Your task to perform on an android device: turn off translation in the chrome app Image 0: 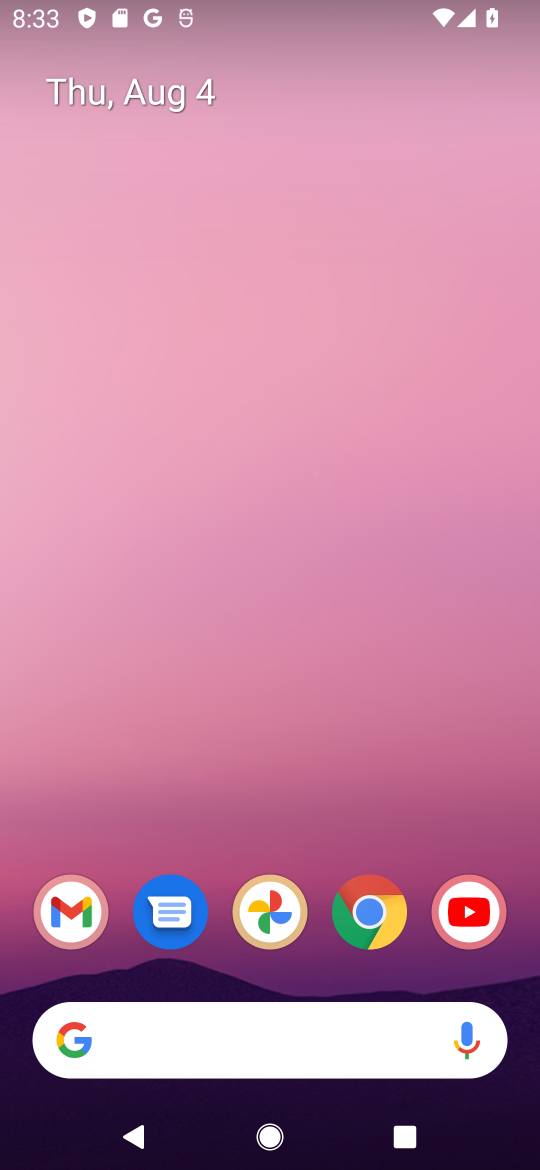
Step 0: click (363, 950)
Your task to perform on an android device: turn off translation in the chrome app Image 1: 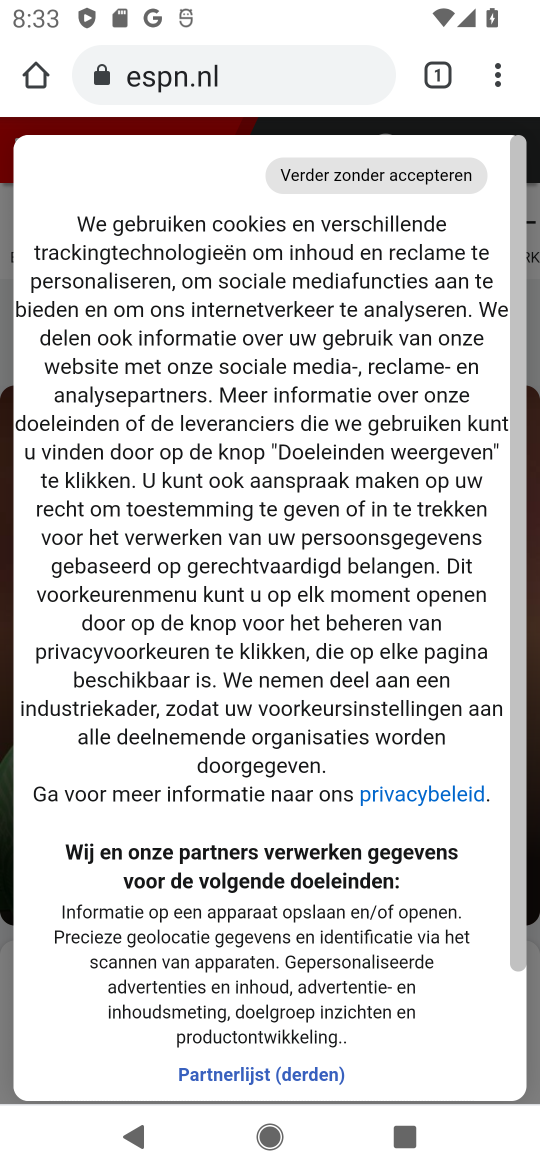
Step 1: click (497, 85)
Your task to perform on an android device: turn off translation in the chrome app Image 2: 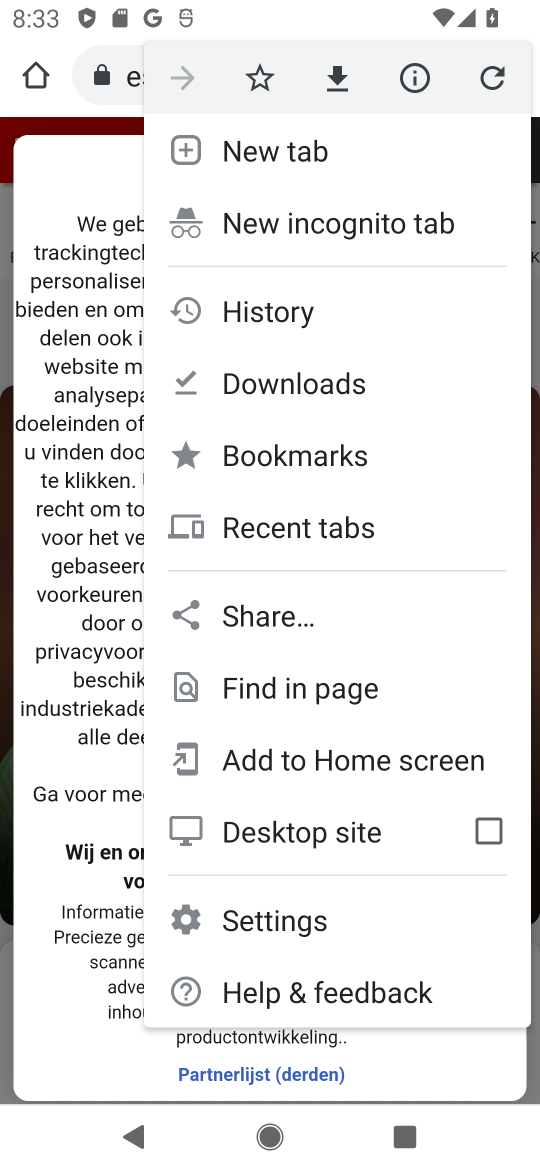
Step 2: click (313, 919)
Your task to perform on an android device: turn off translation in the chrome app Image 3: 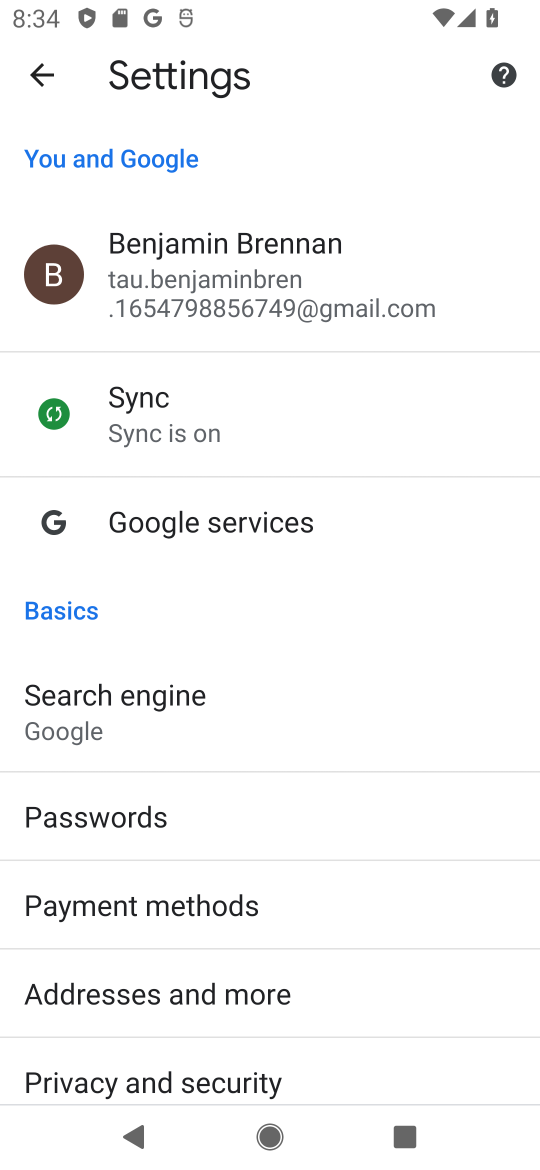
Step 3: drag from (368, 1082) to (365, 551)
Your task to perform on an android device: turn off translation in the chrome app Image 4: 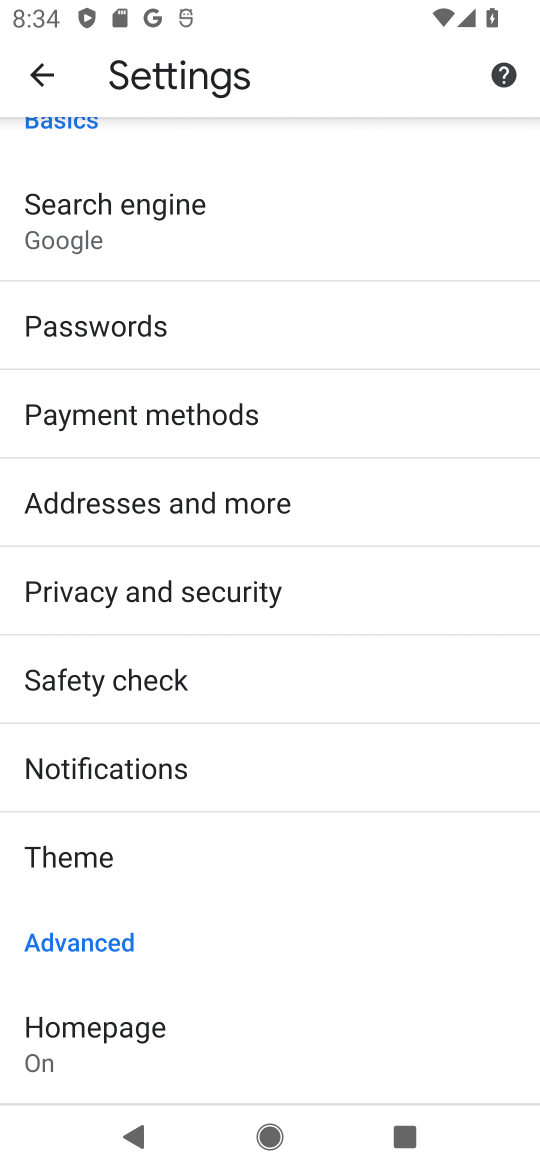
Step 4: drag from (378, 1020) to (323, 466)
Your task to perform on an android device: turn off translation in the chrome app Image 5: 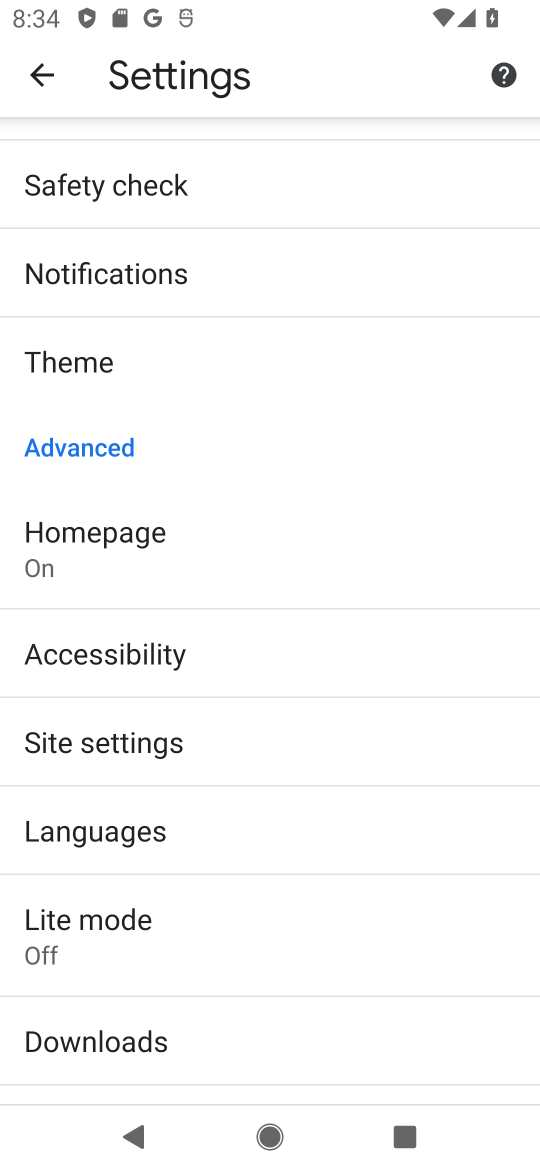
Step 5: click (340, 837)
Your task to perform on an android device: turn off translation in the chrome app Image 6: 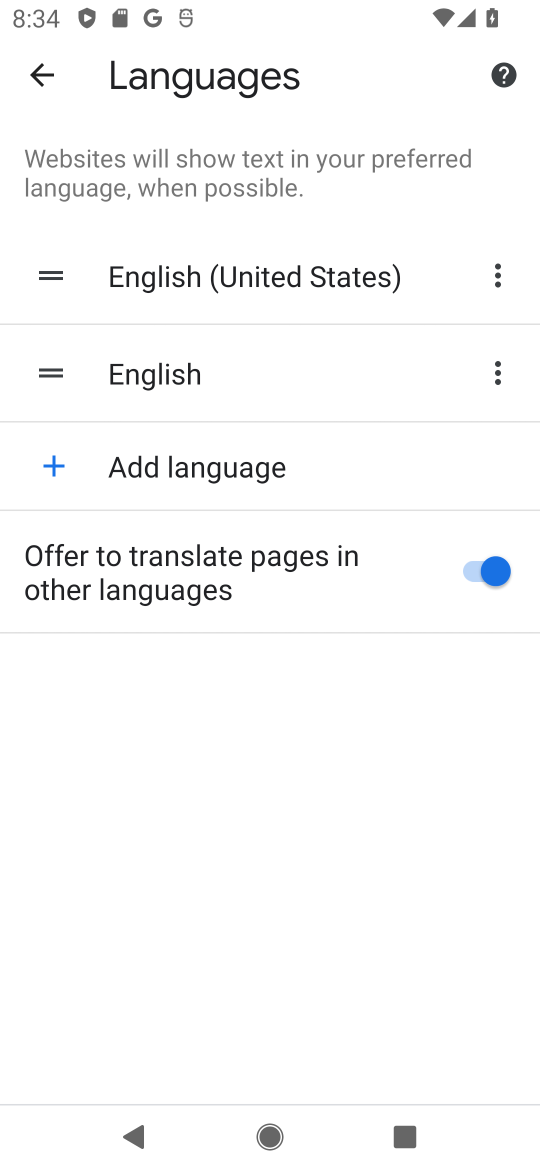
Step 6: click (474, 576)
Your task to perform on an android device: turn off translation in the chrome app Image 7: 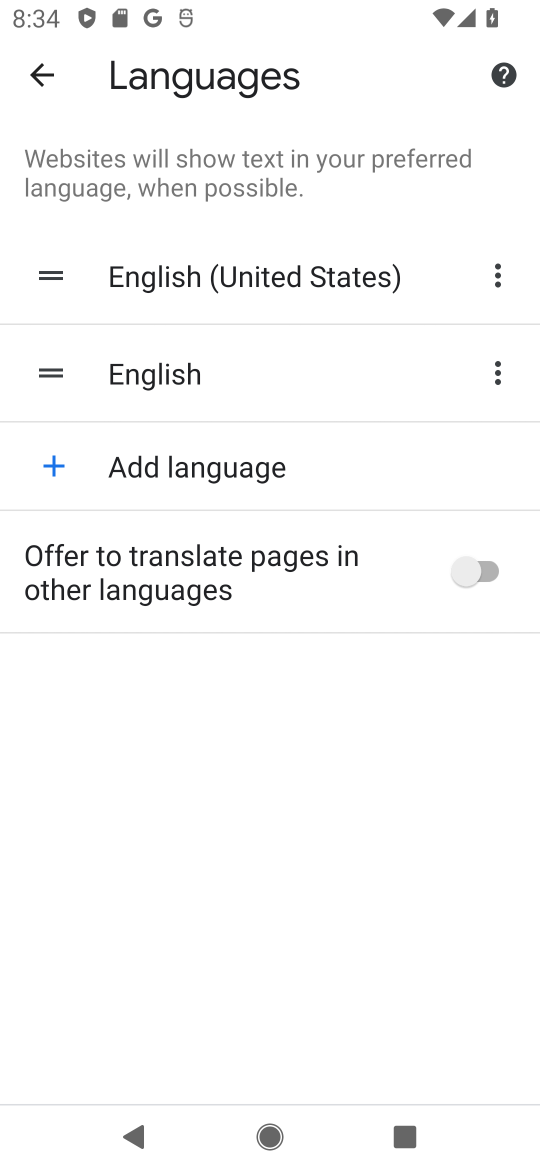
Step 7: task complete